Your task to perform on an android device: change the upload size in google photos Image 0: 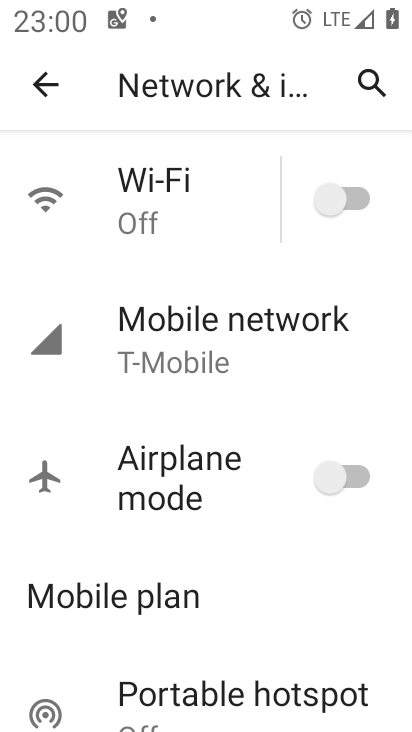
Step 0: press home button
Your task to perform on an android device: change the upload size in google photos Image 1: 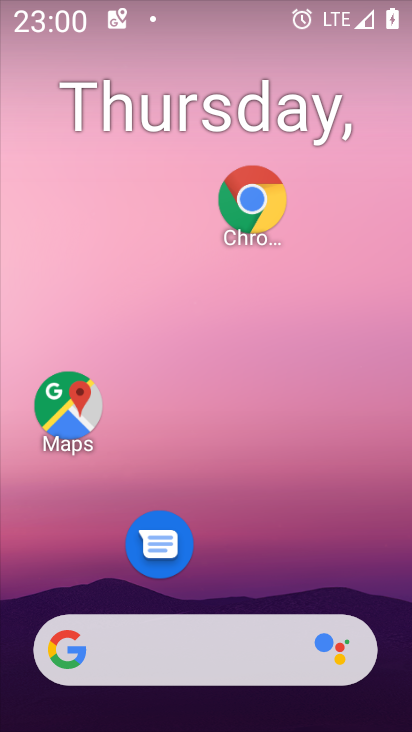
Step 1: drag from (241, 567) to (157, 32)
Your task to perform on an android device: change the upload size in google photos Image 2: 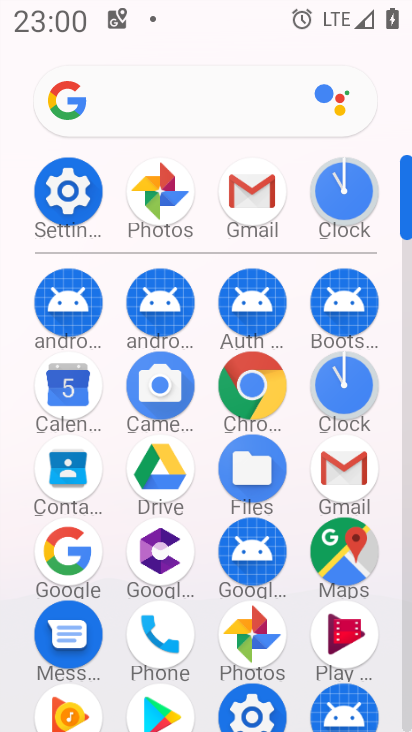
Step 2: click (260, 620)
Your task to perform on an android device: change the upload size in google photos Image 3: 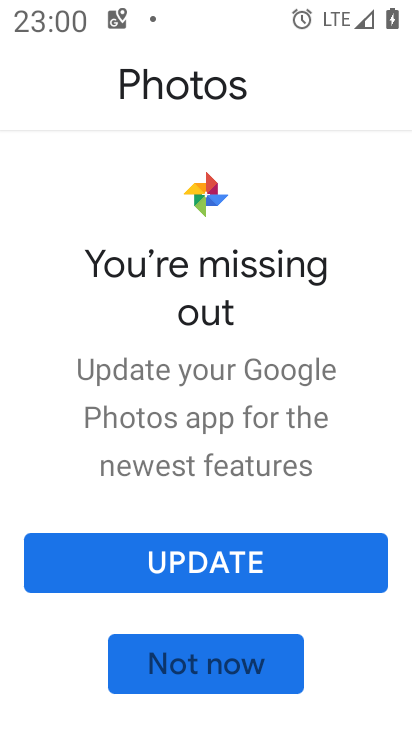
Step 3: click (181, 644)
Your task to perform on an android device: change the upload size in google photos Image 4: 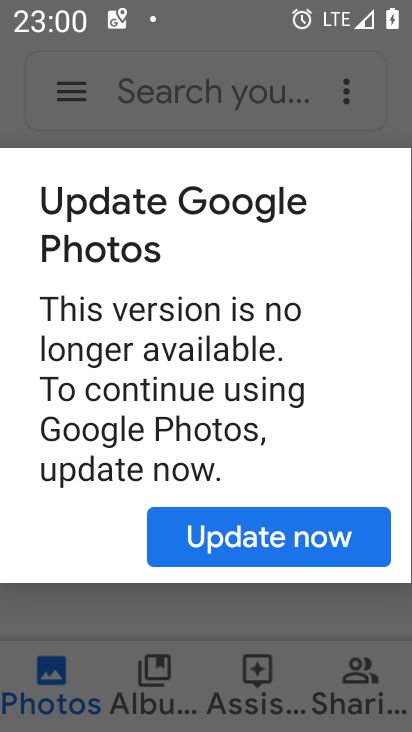
Step 4: click (226, 523)
Your task to perform on an android device: change the upload size in google photos Image 5: 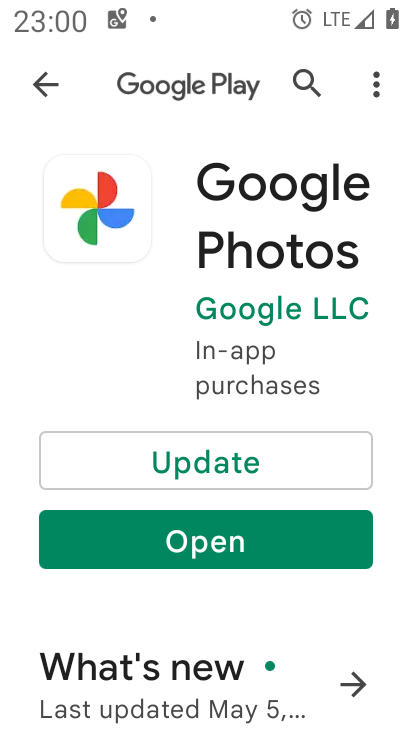
Step 5: click (217, 528)
Your task to perform on an android device: change the upload size in google photos Image 6: 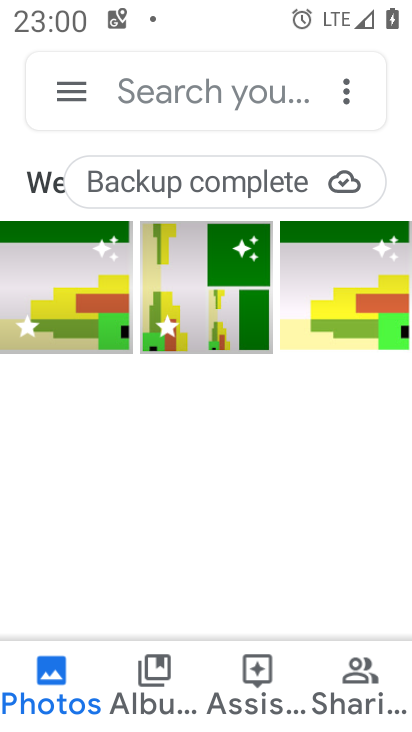
Step 6: click (67, 92)
Your task to perform on an android device: change the upload size in google photos Image 7: 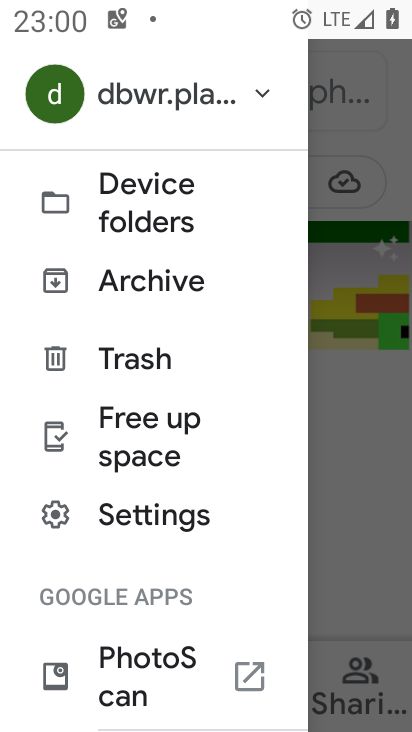
Step 7: click (81, 498)
Your task to perform on an android device: change the upload size in google photos Image 8: 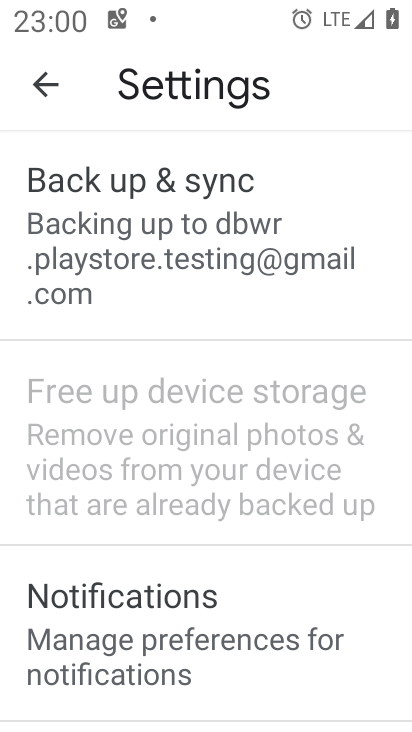
Step 8: click (261, 211)
Your task to perform on an android device: change the upload size in google photos Image 9: 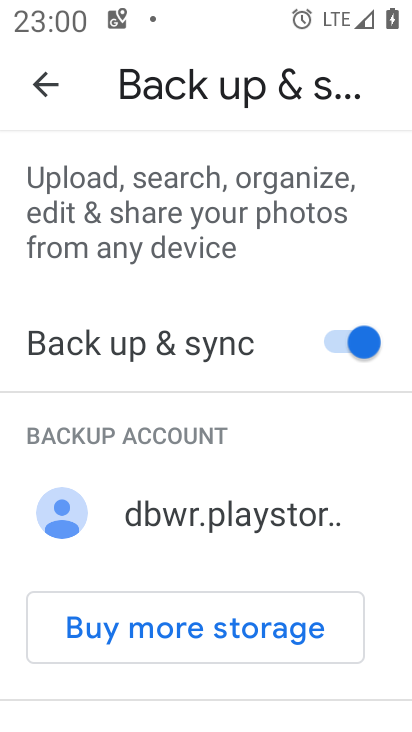
Step 9: drag from (177, 486) to (231, 94)
Your task to perform on an android device: change the upload size in google photos Image 10: 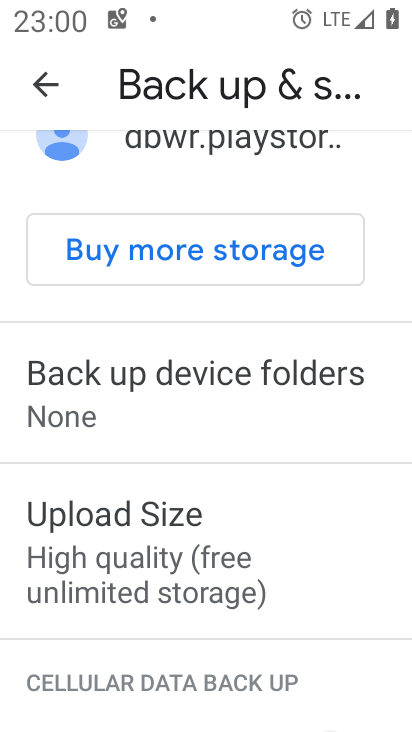
Step 10: click (155, 540)
Your task to perform on an android device: change the upload size in google photos Image 11: 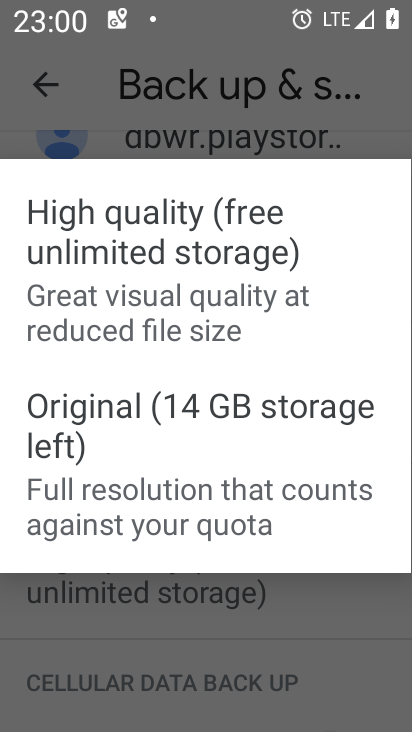
Step 11: click (155, 540)
Your task to perform on an android device: change the upload size in google photos Image 12: 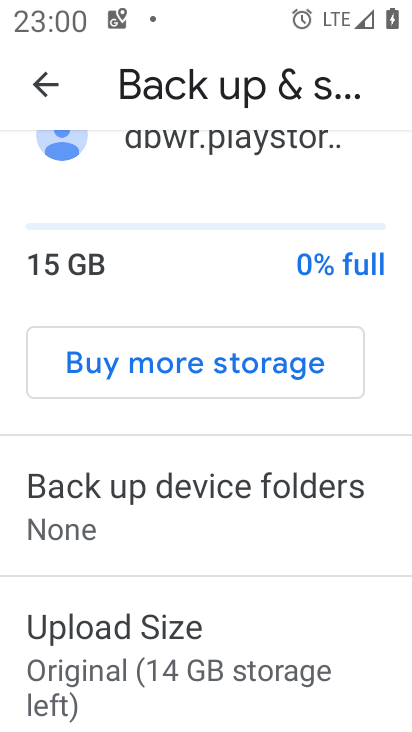
Step 12: task complete